Your task to perform on an android device: Show me the alarms in the clock app Image 0: 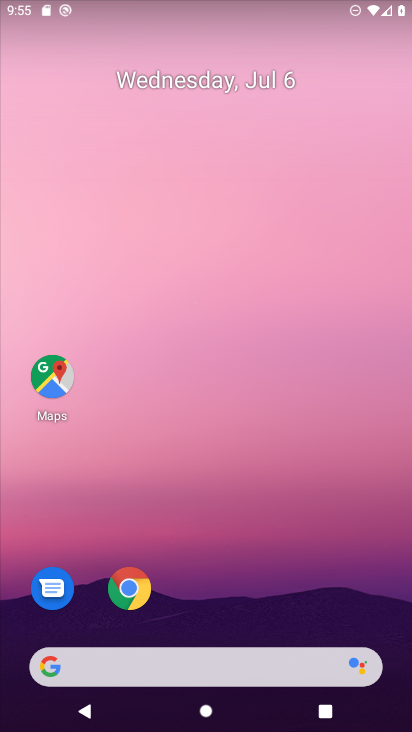
Step 0: drag from (195, 647) to (327, 96)
Your task to perform on an android device: Show me the alarms in the clock app Image 1: 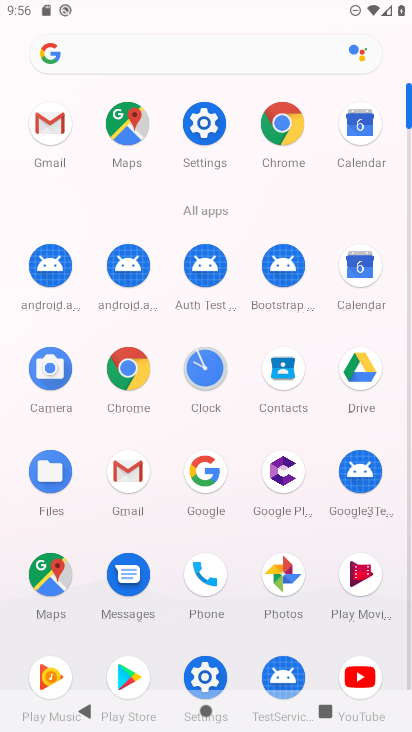
Step 1: click (215, 366)
Your task to perform on an android device: Show me the alarms in the clock app Image 2: 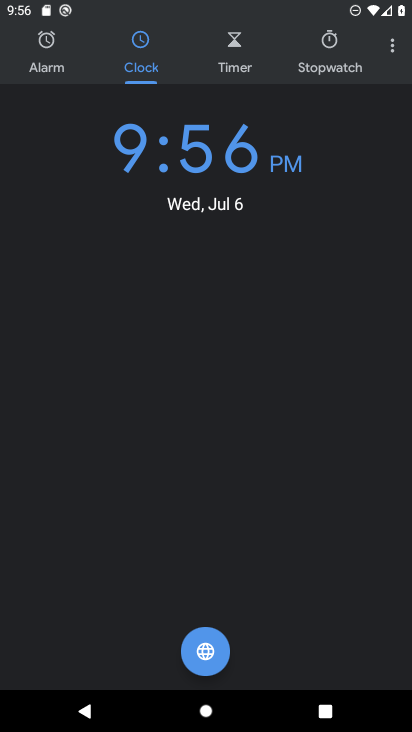
Step 2: click (51, 51)
Your task to perform on an android device: Show me the alarms in the clock app Image 3: 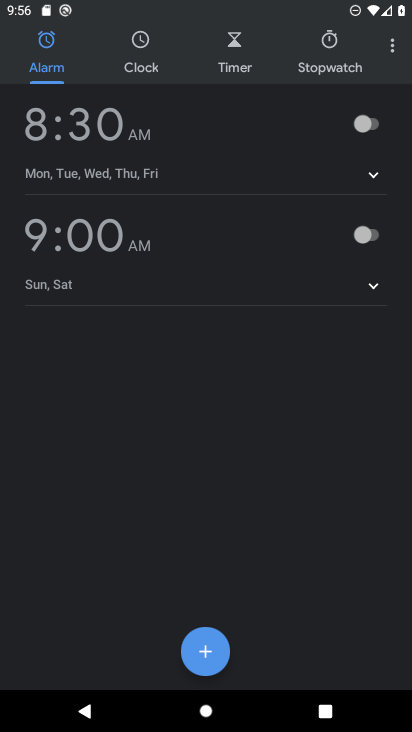
Step 3: task complete